Your task to perform on an android device: What is the recent news? Image 0: 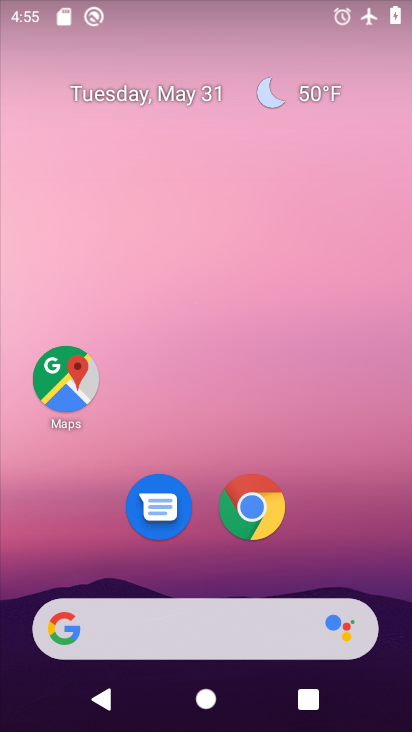
Step 0: click (251, 622)
Your task to perform on an android device: What is the recent news? Image 1: 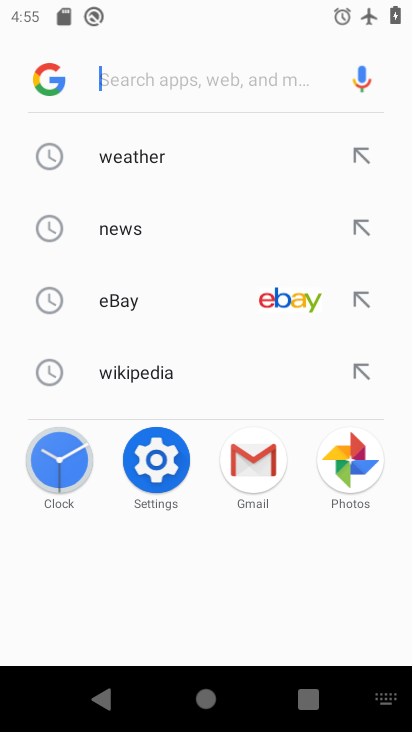
Step 1: click (124, 208)
Your task to perform on an android device: What is the recent news? Image 2: 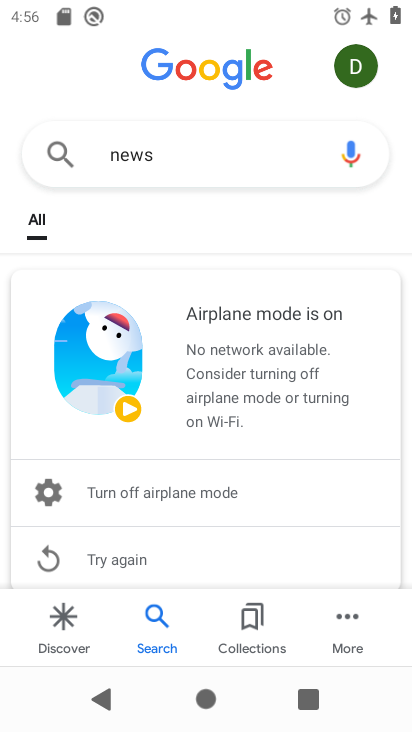
Step 2: task complete